Your task to perform on an android device: Set the phone to "Do not disturb". Image 0: 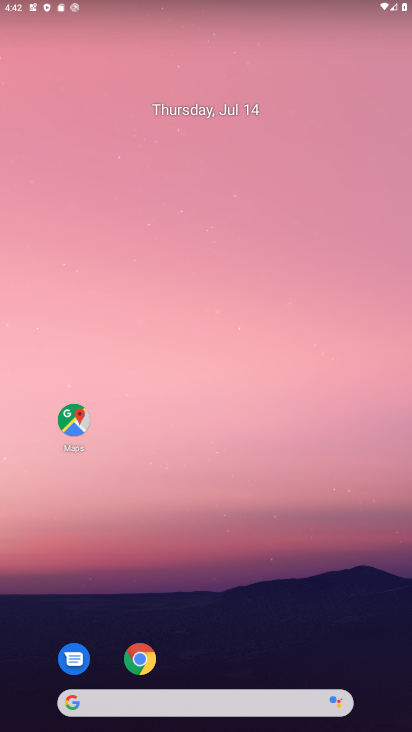
Step 0: press home button
Your task to perform on an android device: Set the phone to "Do not disturb". Image 1: 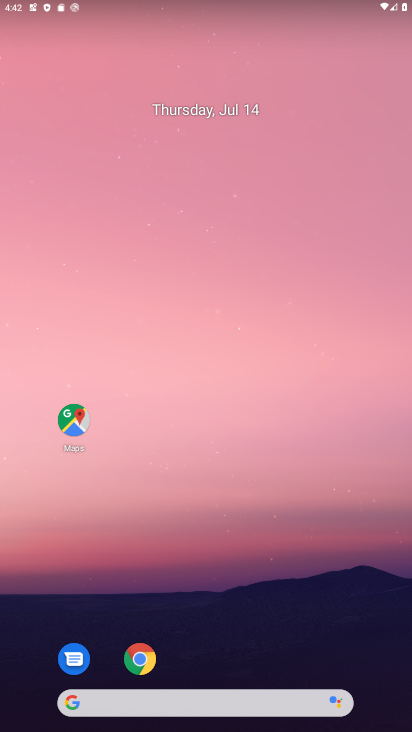
Step 1: drag from (191, 8) to (211, 409)
Your task to perform on an android device: Set the phone to "Do not disturb". Image 2: 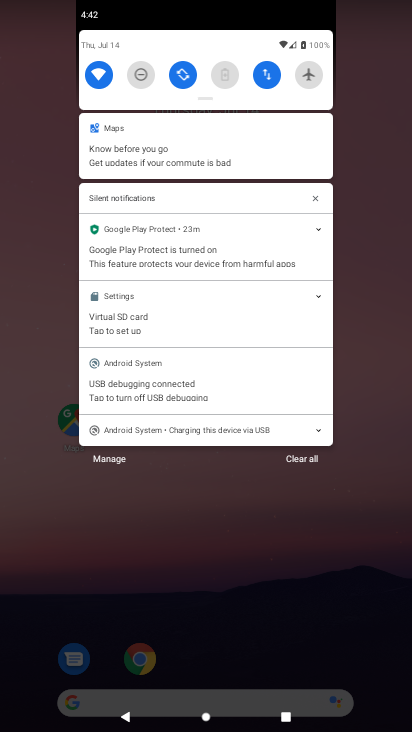
Step 2: click (295, 458)
Your task to perform on an android device: Set the phone to "Do not disturb". Image 3: 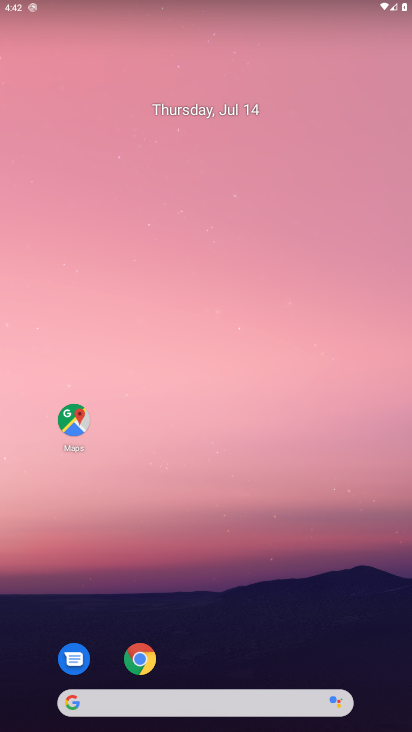
Step 3: drag from (210, 6) to (169, 356)
Your task to perform on an android device: Set the phone to "Do not disturb". Image 4: 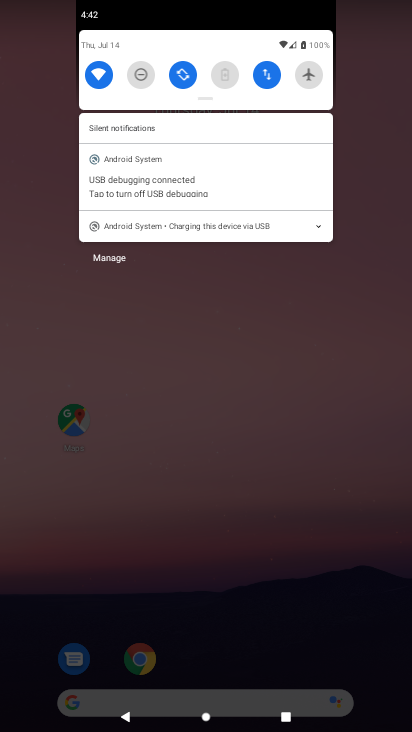
Step 4: click (138, 72)
Your task to perform on an android device: Set the phone to "Do not disturb". Image 5: 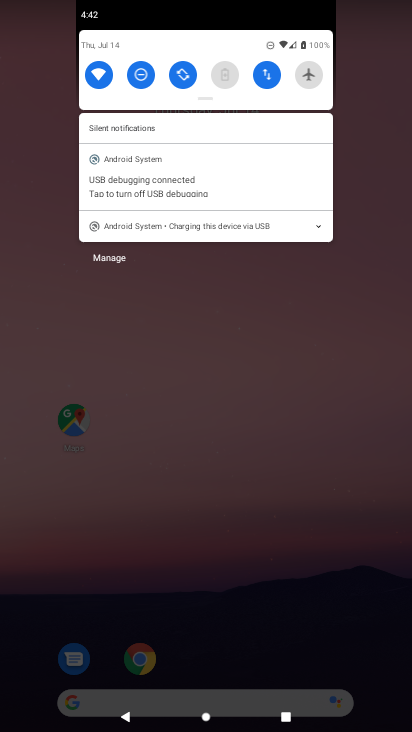
Step 5: task complete